Your task to perform on an android device: Open calendar and show me the first week of next month Image 0: 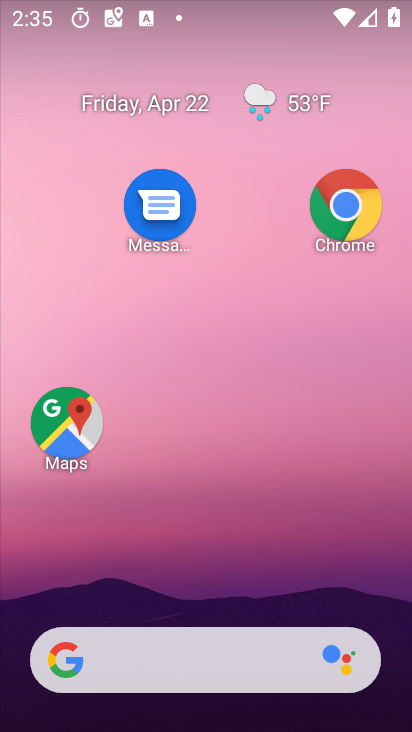
Step 0: drag from (227, 535) to (227, 347)
Your task to perform on an android device: Open calendar and show me the first week of next month Image 1: 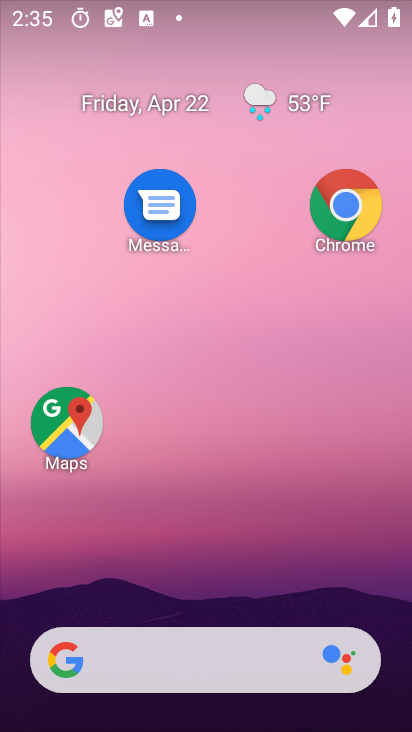
Step 1: drag from (192, 622) to (181, 339)
Your task to perform on an android device: Open calendar and show me the first week of next month Image 2: 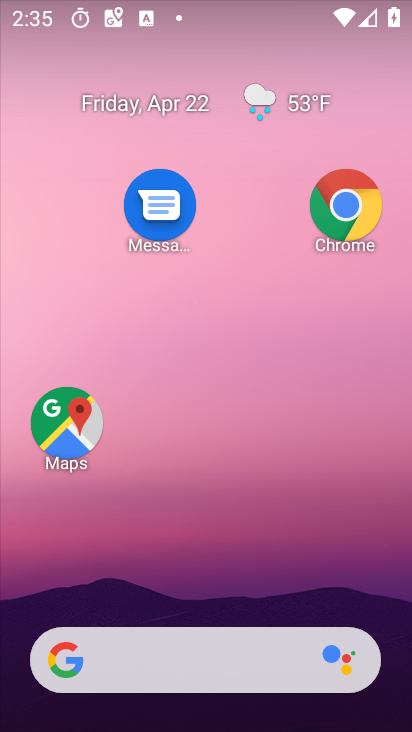
Step 2: drag from (211, 586) to (218, 263)
Your task to perform on an android device: Open calendar and show me the first week of next month Image 3: 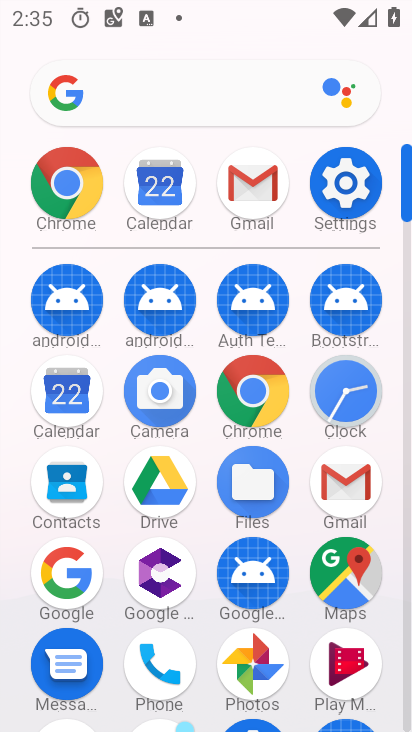
Step 3: click (161, 197)
Your task to perform on an android device: Open calendar and show me the first week of next month Image 4: 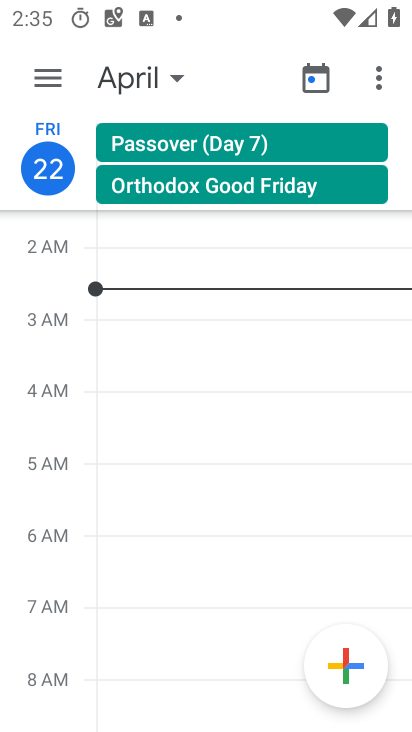
Step 4: click (128, 73)
Your task to perform on an android device: Open calendar and show me the first week of next month Image 5: 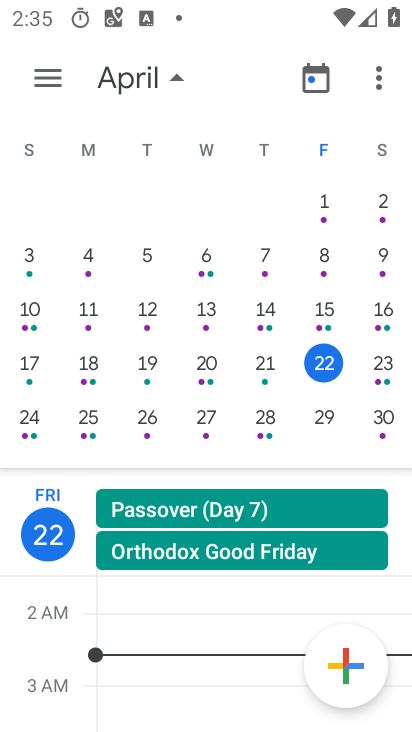
Step 5: task complete